Your task to perform on an android device: turn on translation in the chrome app Image 0: 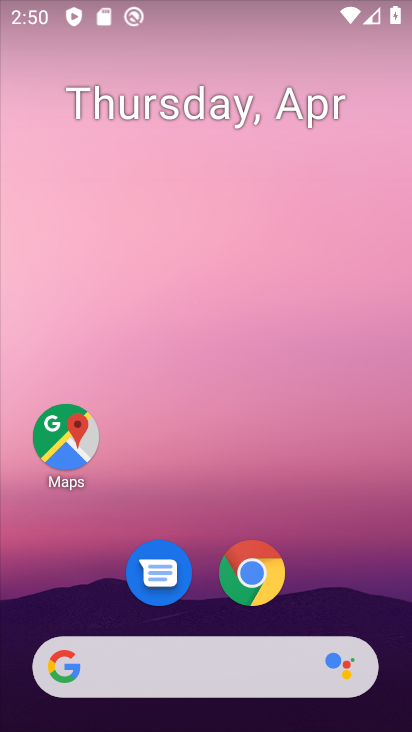
Step 0: drag from (356, 597) to (299, 42)
Your task to perform on an android device: turn on translation in the chrome app Image 1: 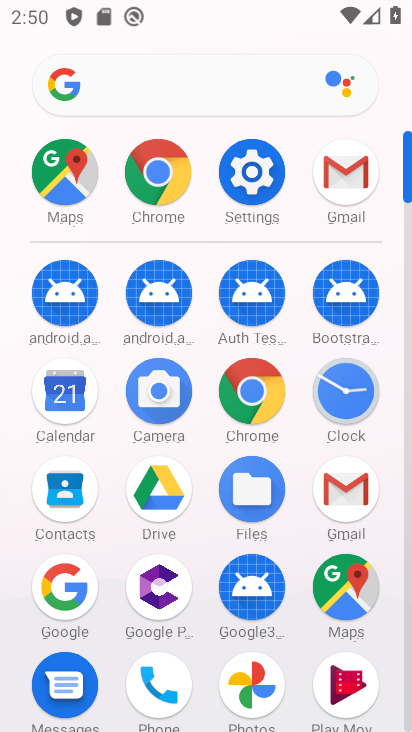
Step 1: click (395, 675)
Your task to perform on an android device: turn on translation in the chrome app Image 2: 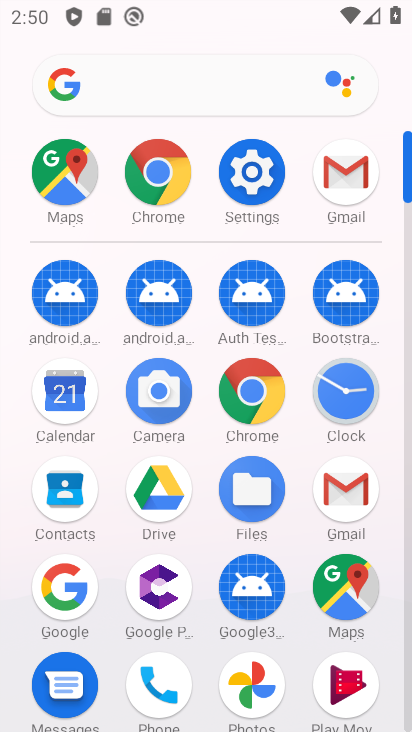
Step 2: click (245, 421)
Your task to perform on an android device: turn on translation in the chrome app Image 3: 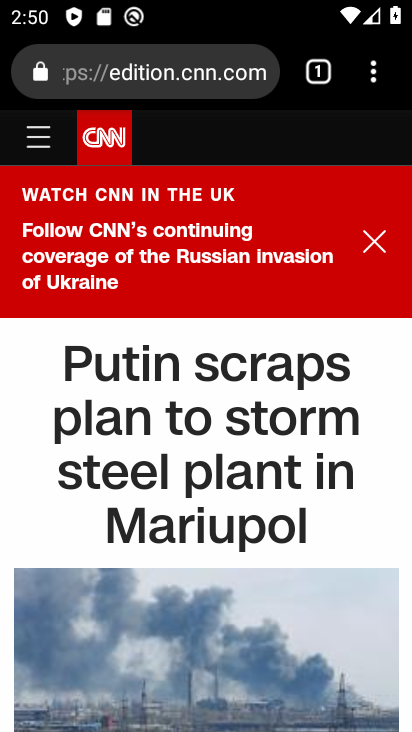
Step 3: press back button
Your task to perform on an android device: turn on translation in the chrome app Image 4: 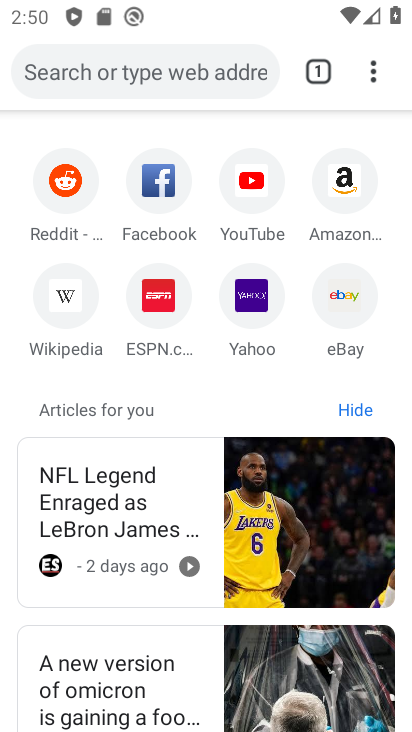
Step 4: click (375, 71)
Your task to perform on an android device: turn on translation in the chrome app Image 5: 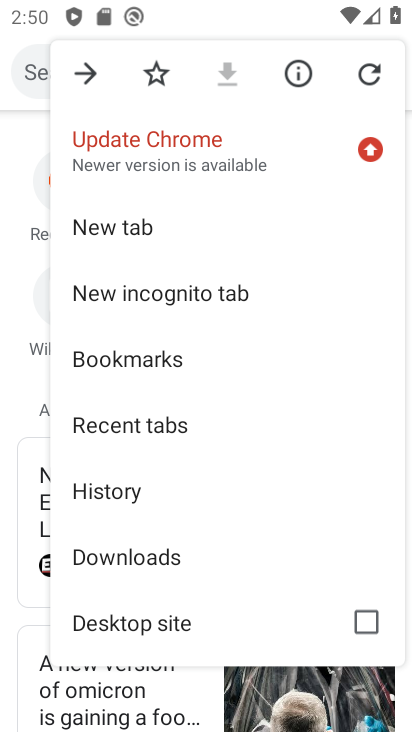
Step 5: drag from (161, 558) to (201, 251)
Your task to perform on an android device: turn on translation in the chrome app Image 6: 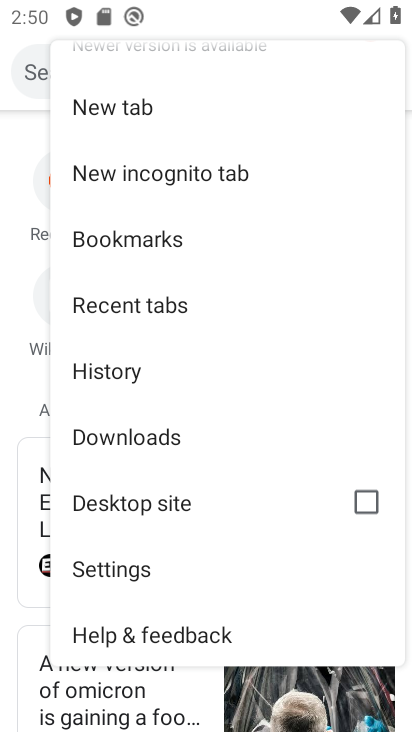
Step 6: drag from (137, 578) to (150, 264)
Your task to perform on an android device: turn on translation in the chrome app Image 7: 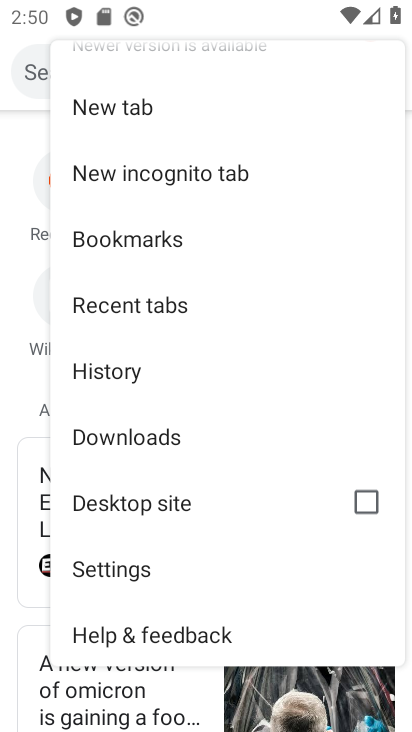
Step 7: click (151, 574)
Your task to perform on an android device: turn on translation in the chrome app Image 8: 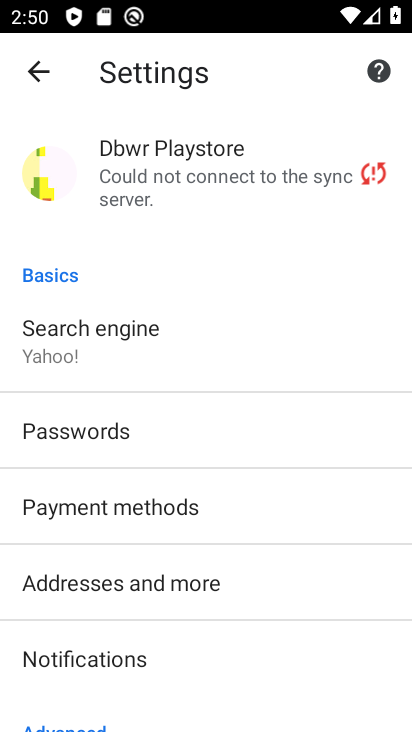
Step 8: drag from (227, 643) to (254, 233)
Your task to perform on an android device: turn on translation in the chrome app Image 9: 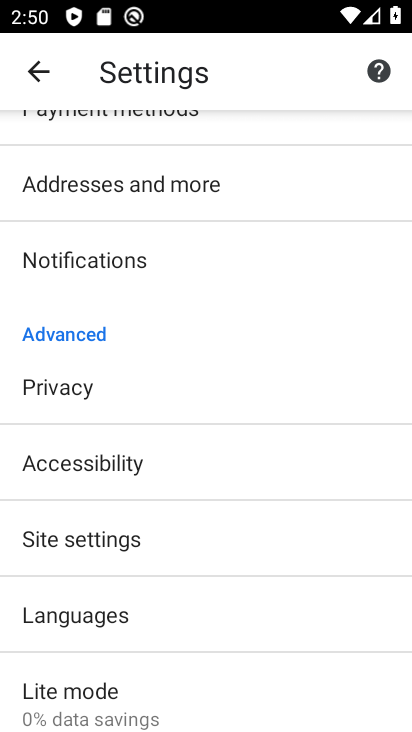
Step 9: click (187, 607)
Your task to perform on an android device: turn on translation in the chrome app Image 10: 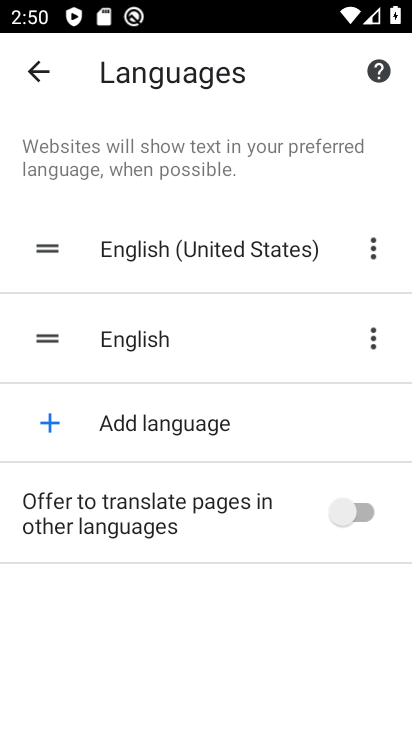
Step 10: click (332, 508)
Your task to perform on an android device: turn on translation in the chrome app Image 11: 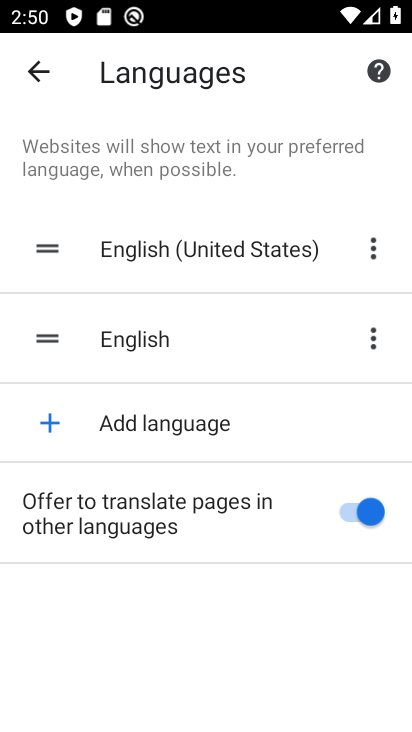
Step 11: task complete